Your task to perform on an android device: change notifications settings Image 0: 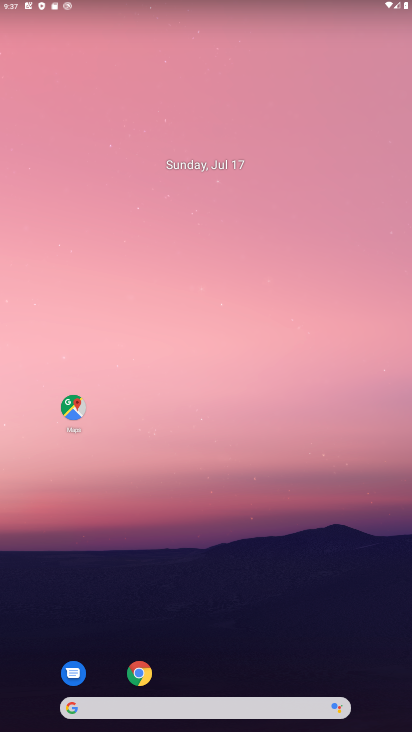
Step 0: drag from (279, 664) to (315, 80)
Your task to perform on an android device: change notifications settings Image 1: 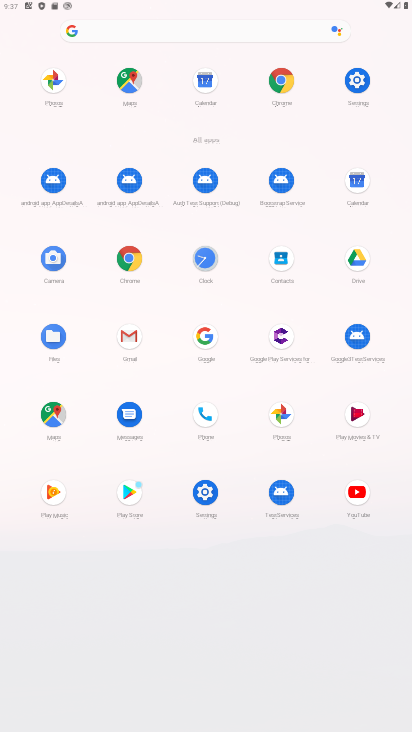
Step 1: click (359, 85)
Your task to perform on an android device: change notifications settings Image 2: 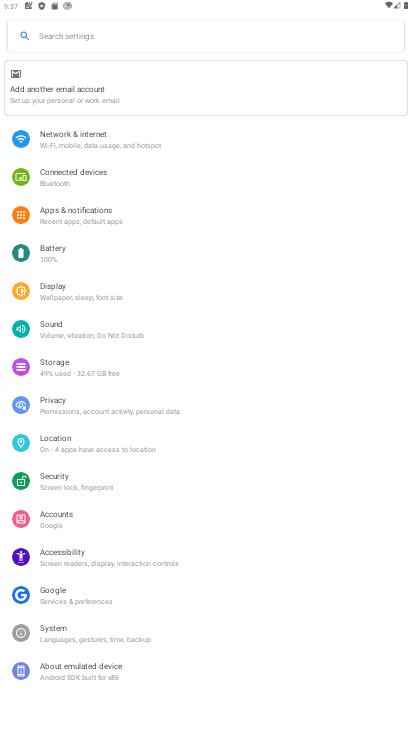
Step 2: click (94, 206)
Your task to perform on an android device: change notifications settings Image 3: 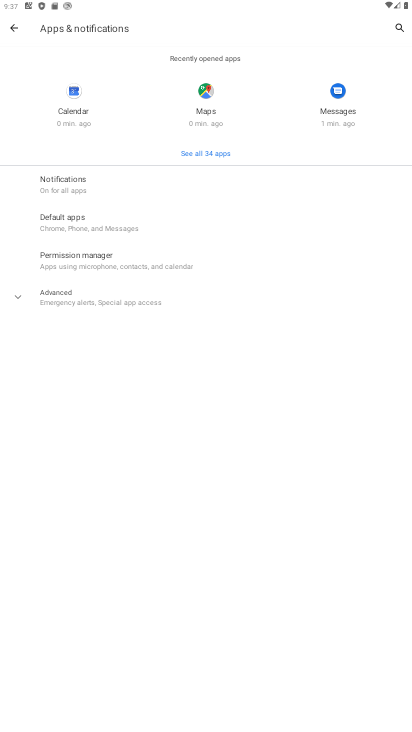
Step 3: click (91, 186)
Your task to perform on an android device: change notifications settings Image 4: 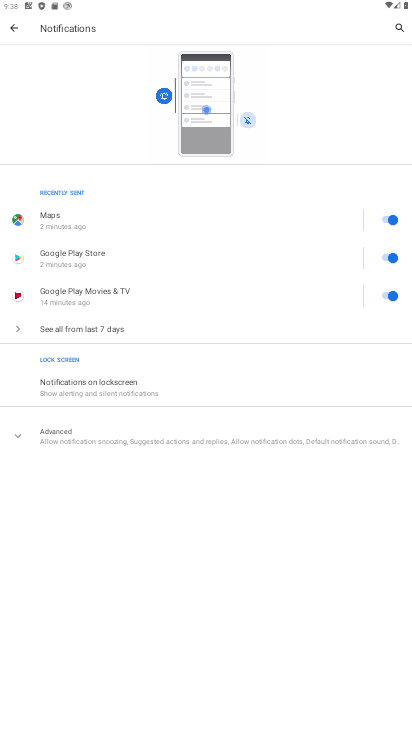
Step 4: click (65, 436)
Your task to perform on an android device: change notifications settings Image 5: 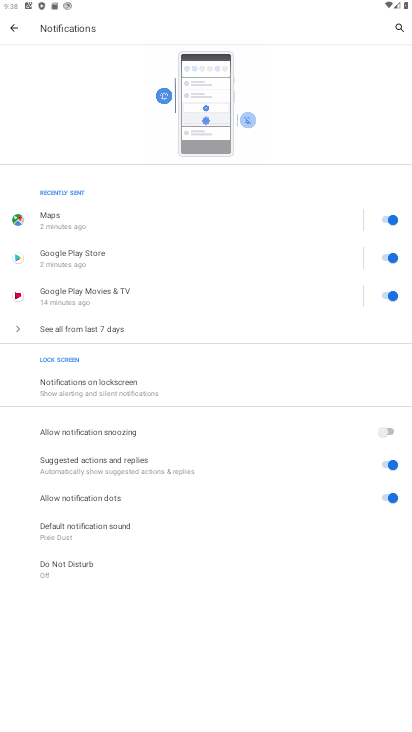
Step 5: click (391, 464)
Your task to perform on an android device: change notifications settings Image 6: 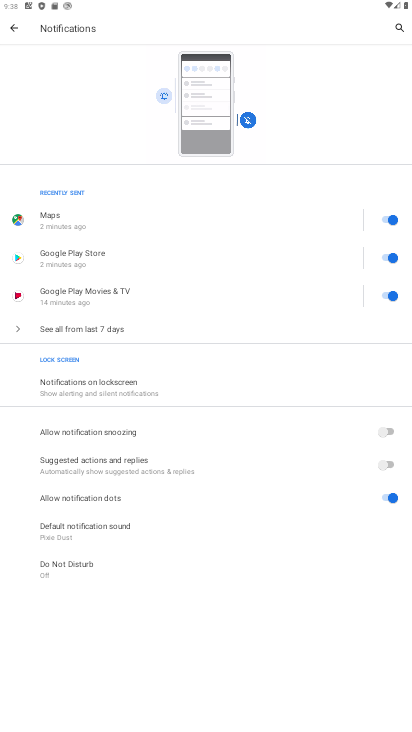
Step 6: click (390, 497)
Your task to perform on an android device: change notifications settings Image 7: 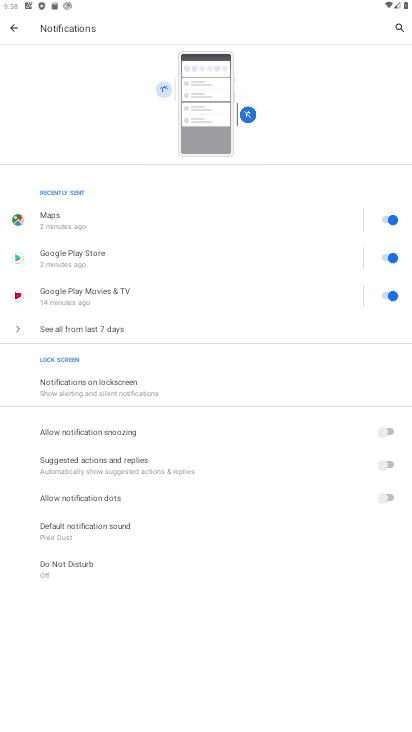
Step 7: click (383, 433)
Your task to perform on an android device: change notifications settings Image 8: 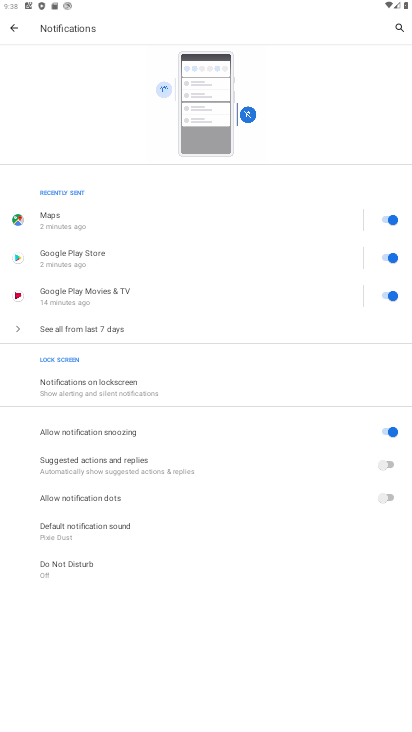
Step 8: task complete